Your task to perform on an android device: turn on translation in the chrome app Image 0: 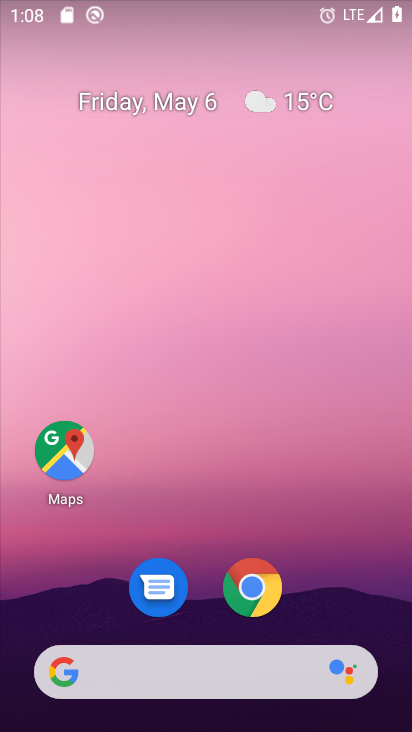
Step 0: click (257, 594)
Your task to perform on an android device: turn on translation in the chrome app Image 1: 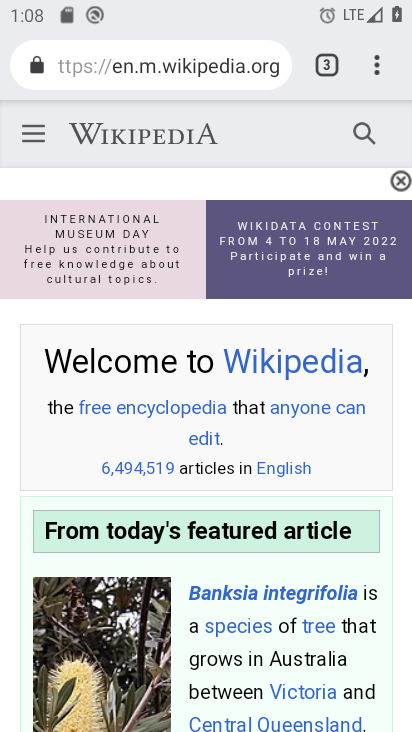
Step 1: click (381, 68)
Your task to perform on an android device: turn on translation in the chrome app Image 2: 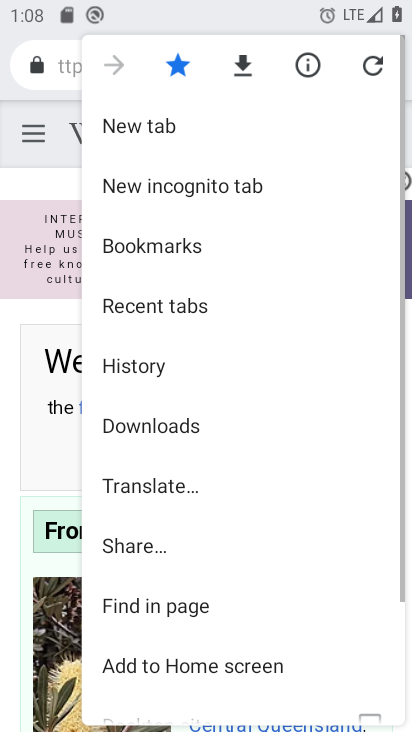
Step 2: drag from (257, 641) to (247, 177)
Your task to perform on an android device: turn on translation in the chrome app Image 3: 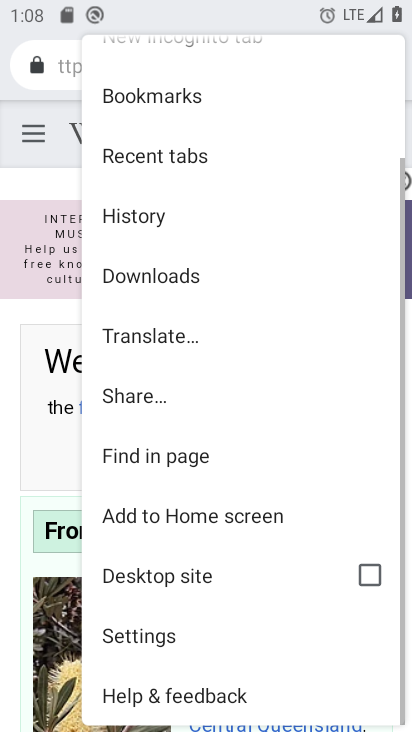
Step 3: click (189, 643)
Your task to perform on an android device: turn on translation in the chrome app Image 4: 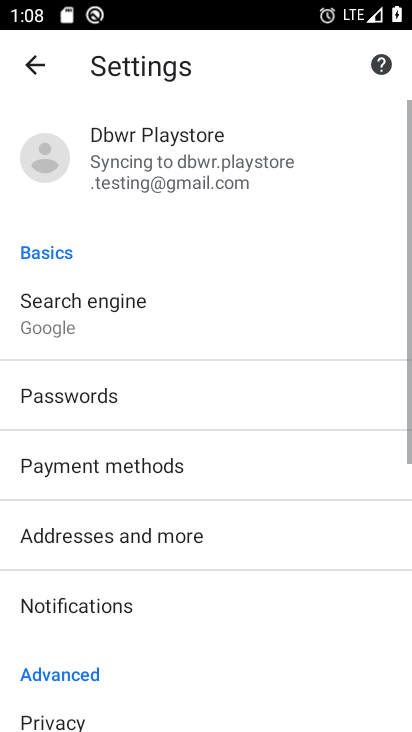
Step 4: drag from (196, 622) to (189, 146)
Your task to perform on an android device: turn on translation in the chrome app Image 5: 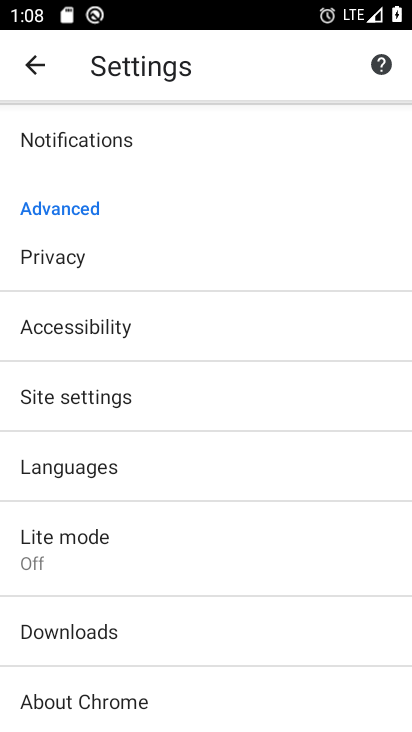
Step 5: click (138, 466)
Your task to perform on an android device: turn on translation in the chrome app Image 6: 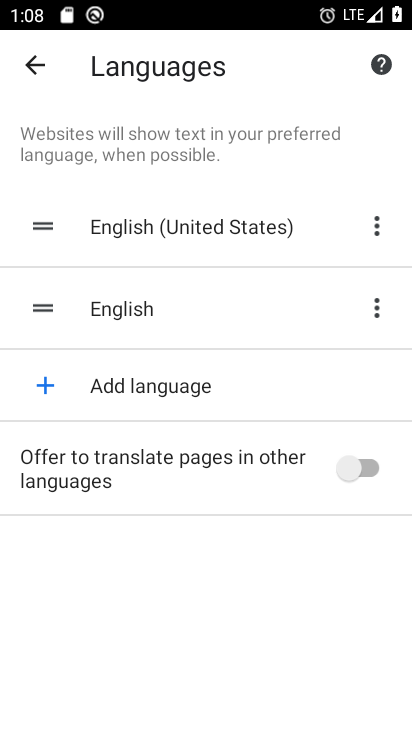
Step 6: click (346, 460)
Your task to perform on an android device: turn on translation in the chrome app Image 7: 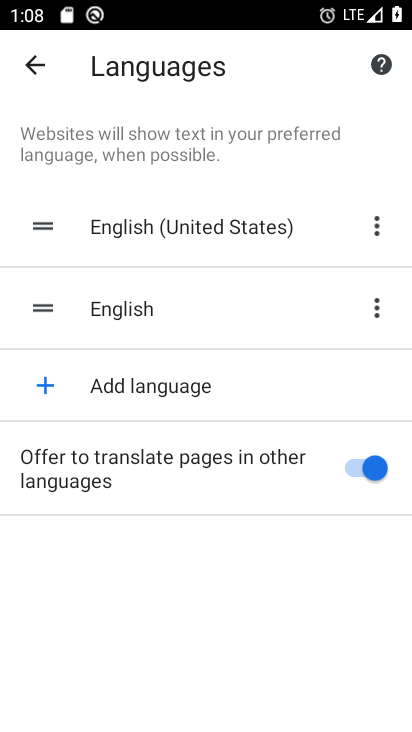
Step 7: task complete